Your task to perform on an android device: turn pop-ups off in chrome Image 0: 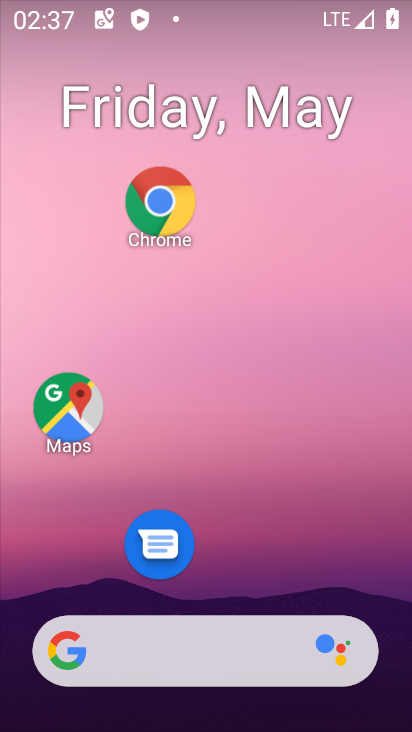
Step 0: drag from (277, 576) to (265, 299)
Your task to perform on an android device: turn pop-ups off in chrome Image 1: 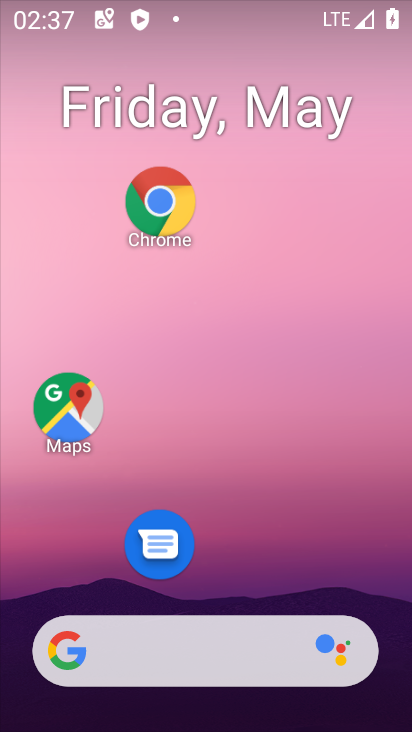
Step 1: drag from (256, 518) to (247, 73)
Your task to perform on an android device: turn pop-ups off in chrome Image 2: 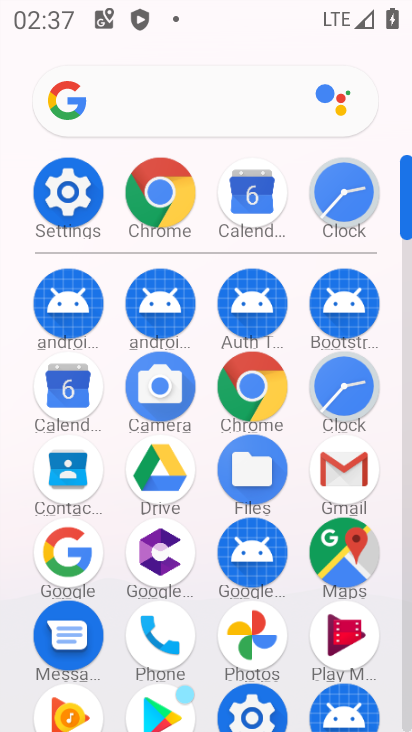
Step 2: click (253, 406)
Your task to perform on an android device: turn pop-ups off in chrome Image 3: 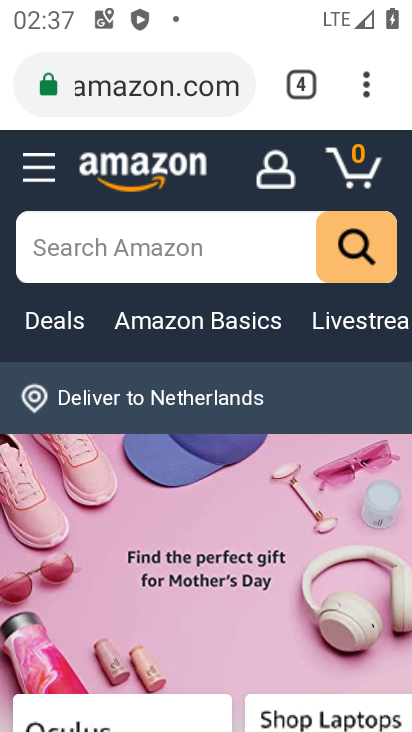
Step 3: click (374, 88)
Your task to perform on an android device: turn pop-ups off in chrome Image 4: 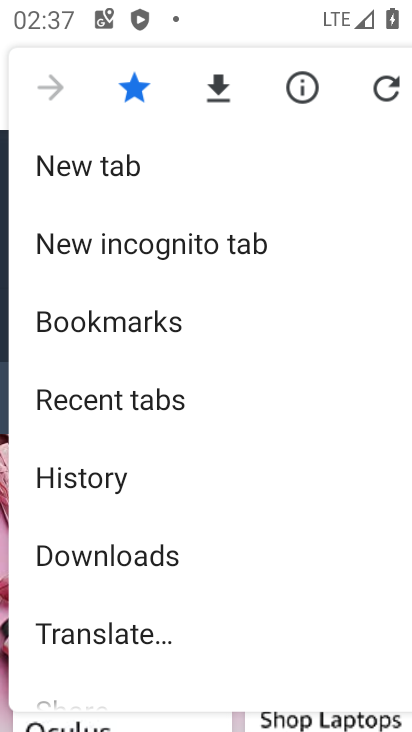
Step 4: drag from (227, 546) to (218, 334)
Your task to perform on an android device: turn pop-ups off in chrome Image 5: 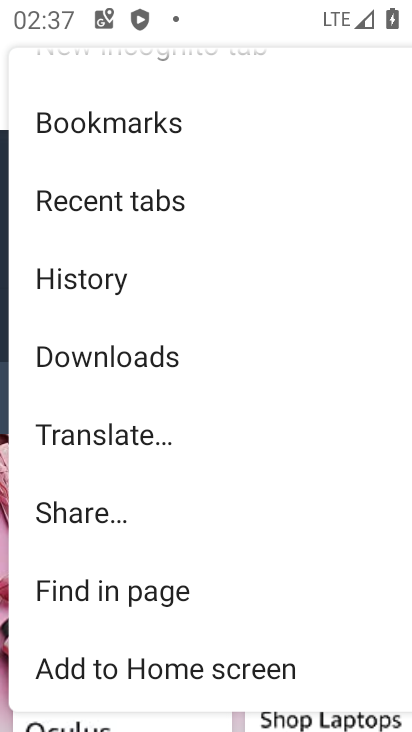
Step 5: drag from (179, 531) to (224, 265)
Your task to perform on an android device: turn pop-ups off in chrome Image 6: 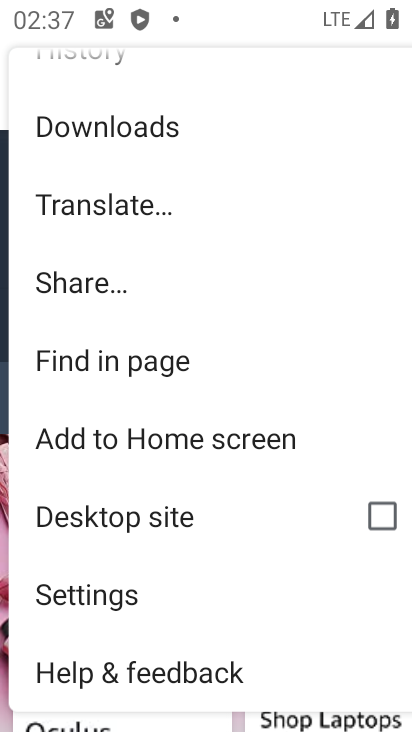
Step 6: drag from (170, 629) to (188, 472)
Your task to perform on an android device: turn pop-ups off in chrome Image 7: 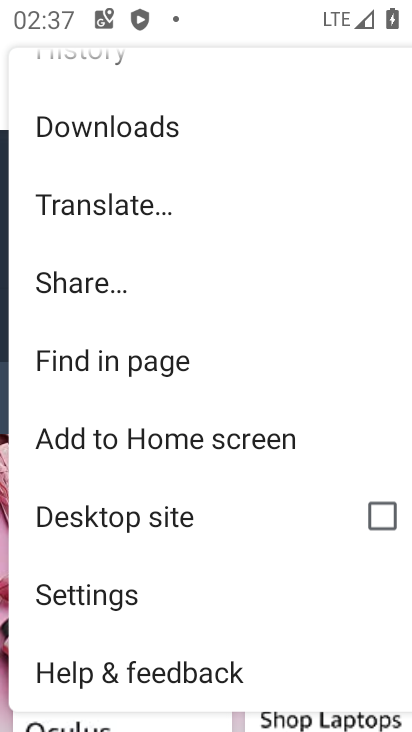
Step 7: click (119, 598)
Your task to perform on an android device: turn pop-ups off in chrome Image 8: 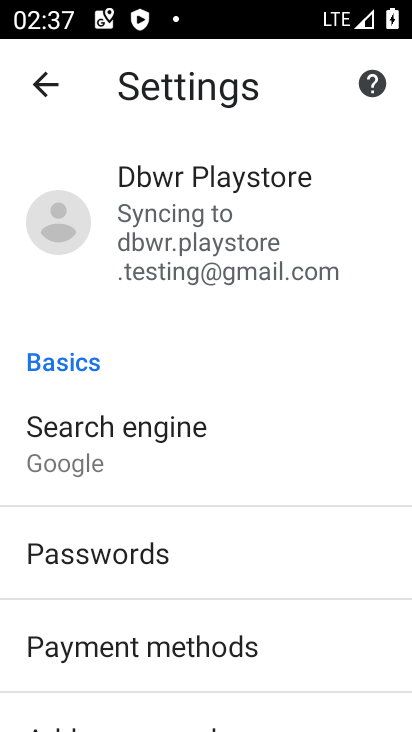
Step 8: drag from (183, 536) to (251, 238)
Your task to perform on an android device: turn pop-ups off in chrome Image 9: 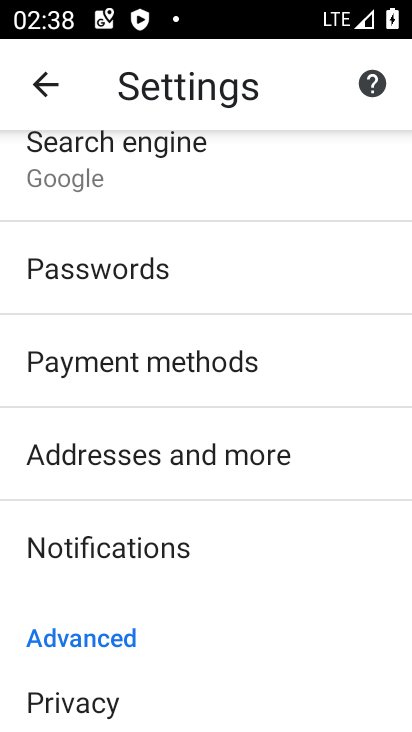
Step 9: drag from (162, 553) to (184, 296)
Your task to perform on an android device: turn pop-ups off in chrome Image 10: 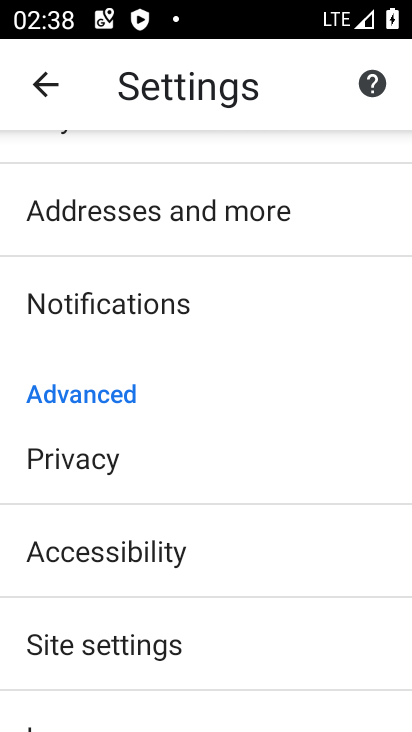
Step 10: click (151, 654)
Your task to perform on an android device: turn pop-ups off in chrome Image 11: 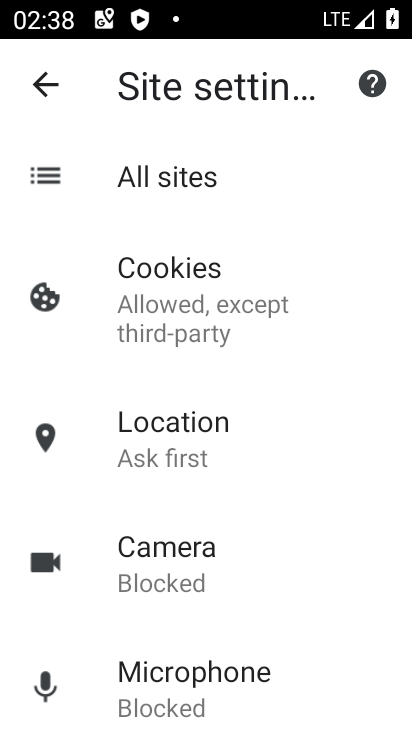
Step 11: drag from (223, 582) to (205, 288)
Your task to perform on an android device: turn pop-ups off in chrome Image 12: 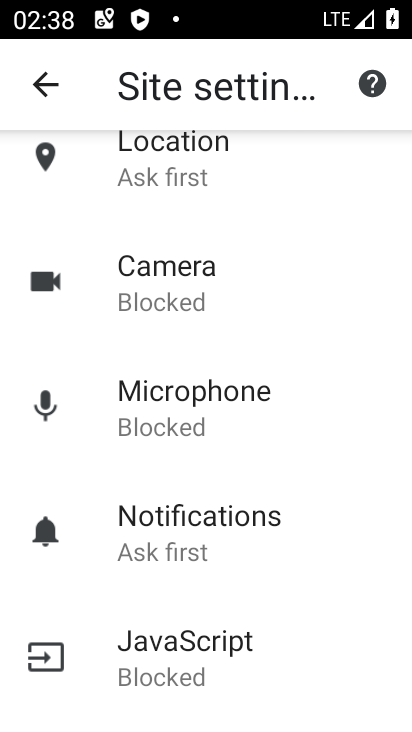
Step 12: drag from (215, 640) to (213, 365)
Your task to perform on an android device: turn pop-ups off in chrome Image 13: 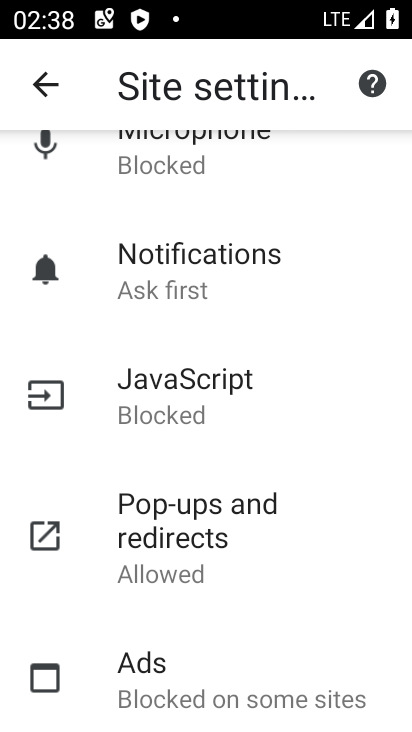
Step 13: drag from (204, 629) to (193, 396)
Your task to perform on an android device: turn pop-ups off in chrome Image 14: 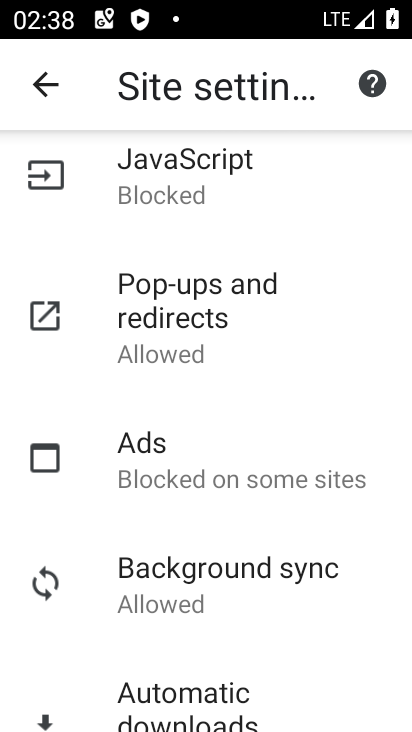
Step 14: click (182, 333)
Your task to perform on an android device: turn pop-ups off in chrome Image 15: 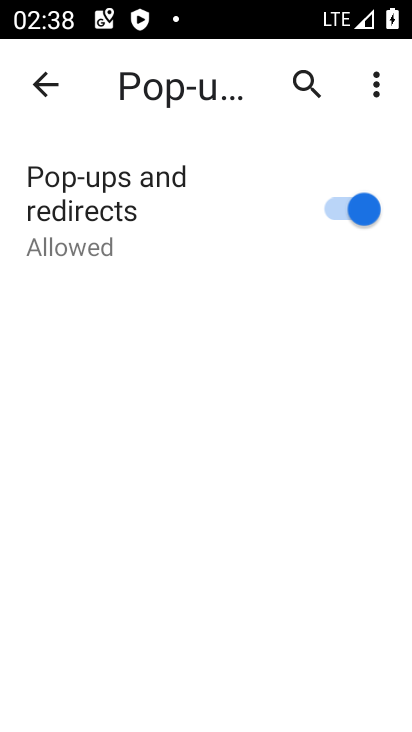
Step 15: click (348, 221)
Your task to perform on an android device: turn pop-ups off in chrome Image 16: 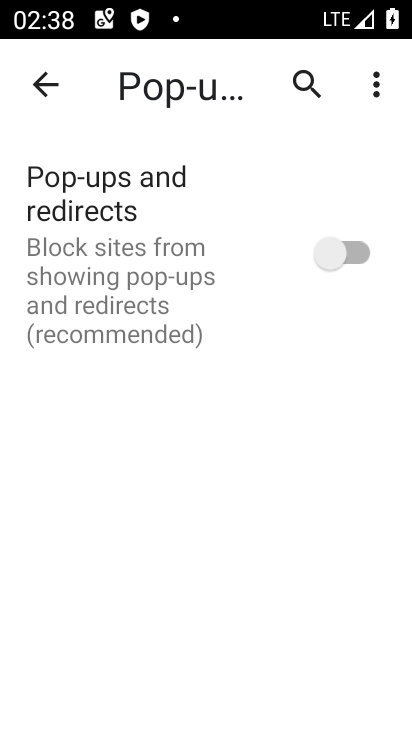
Step 16: task complete